Your task to perform on an android device: Show me the alarms in the clock app Image 0: 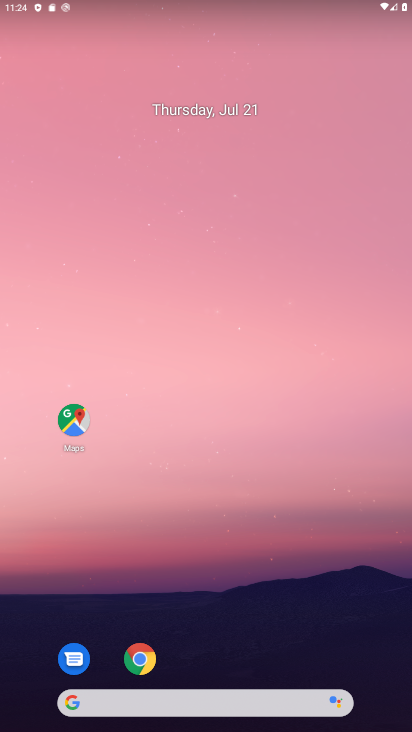
Step 0: drag from (197, 648) to (219, 106)
Your task to perform on an android device: Show me the alarms in the clock app Image 1: 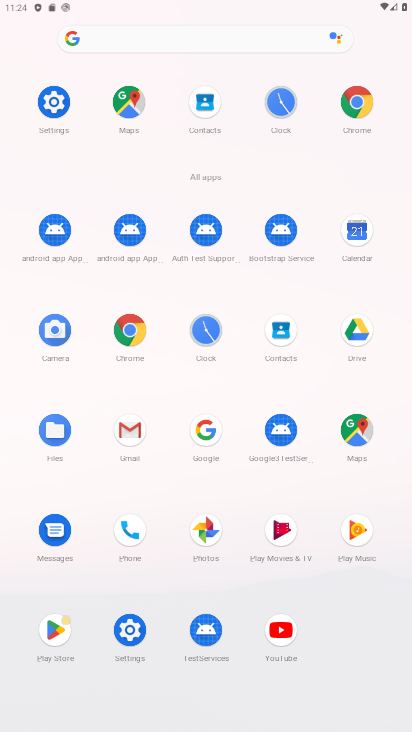
Step 1: click (292, 120)
Your task to perform on an android device: Show me the alarms in the clock app Image 2: 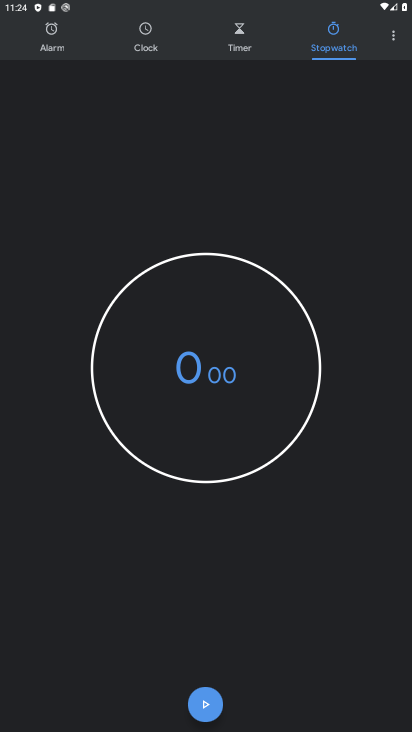
Step 2: click (47, 40)
Your task to perform on an android device: Show me the alarms in the clock app Image 3: 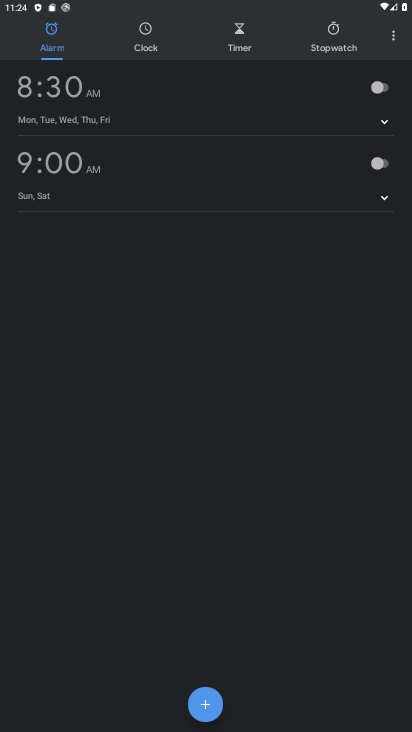
Step 3: task complete